Your task to perform on an android device: check battery use Image 0: 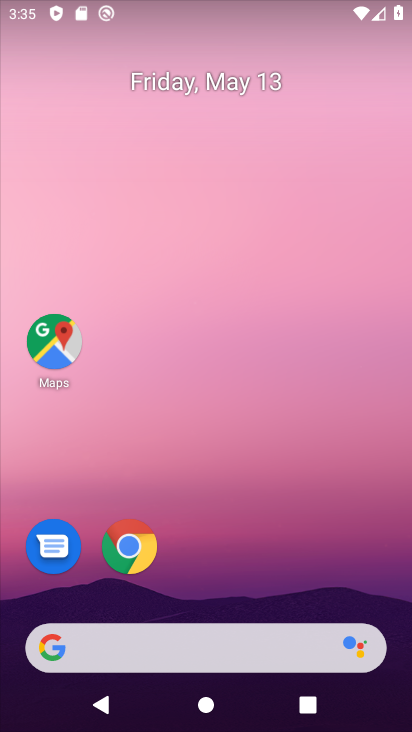
Step 0: drag from (218, 727) to (222, 139)
Your task to perform on an android device: check battery use Image 1: 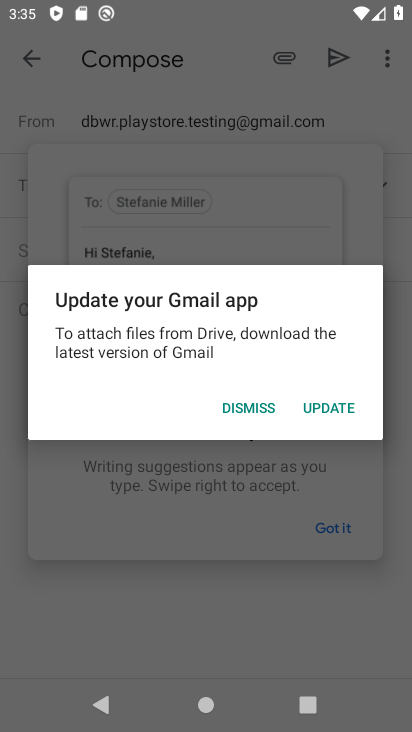
Step 1: press home button
Your task to perform on an android device: check battery use Image 2: 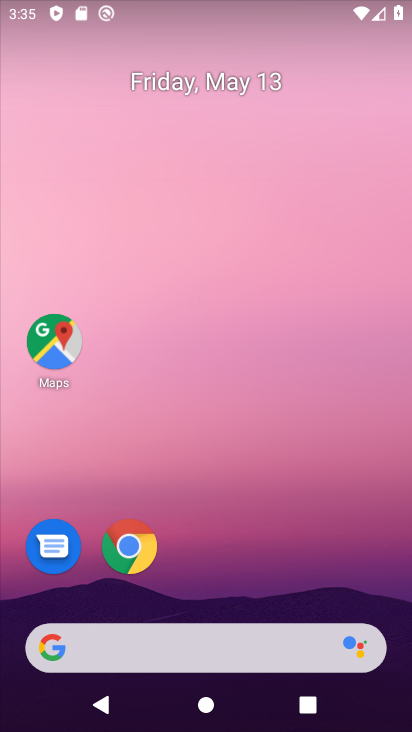
Step 2: drag from (221, 722) to (223, 75)
Your task to perform on an android device: check battery use Image 3: 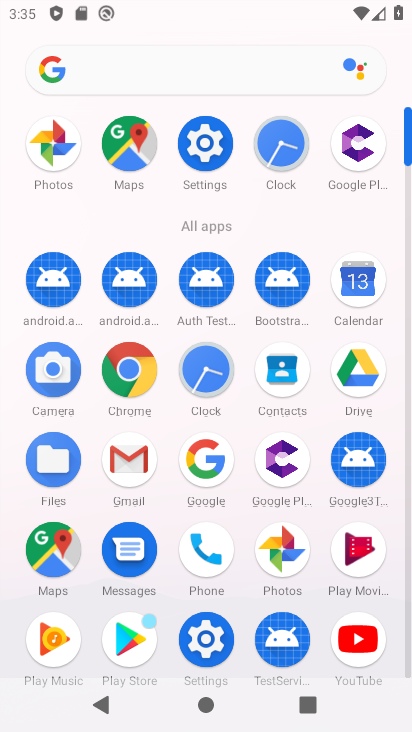
Step 3: click (203, 140)
Your task to perform on an android device: check battery use Image 4: 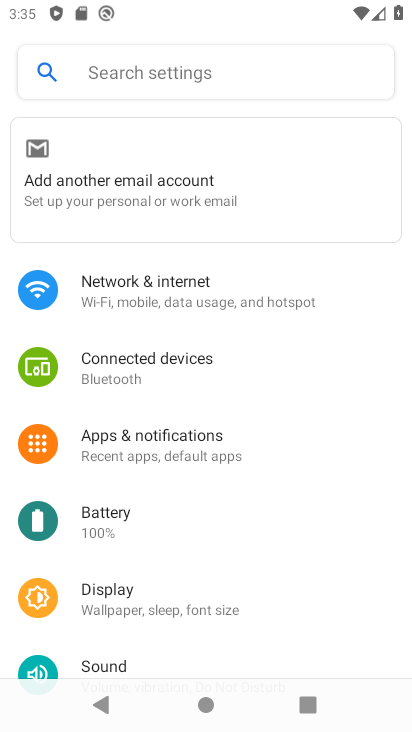
Step 4: click (101, 516)
Your task to perform on an android device: check battery use Image 5: 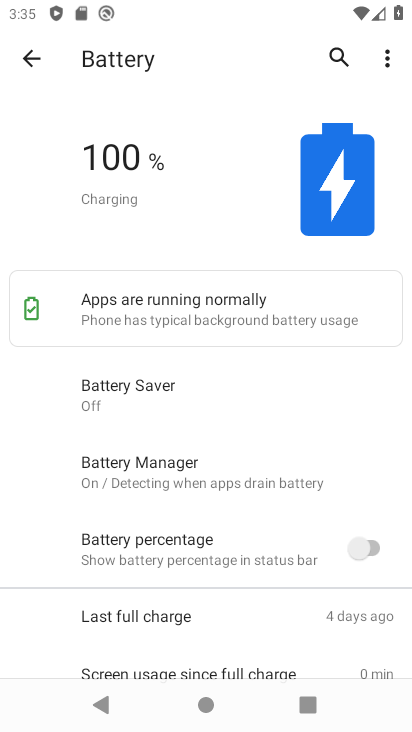
Step 5: drag from (167, 620) to (167, 406)
Your task to perform on an android device: check battery use Image 6: 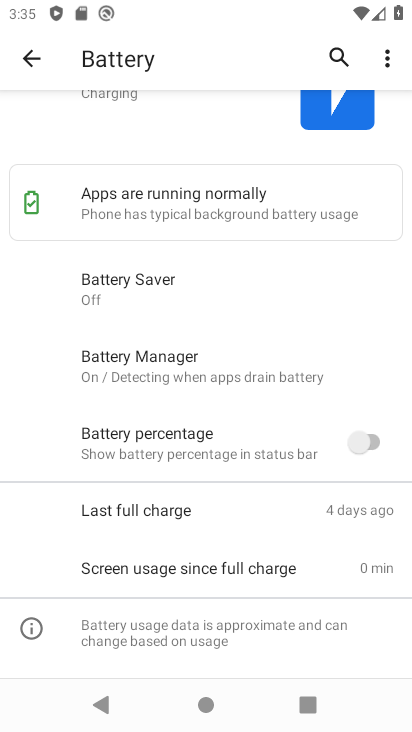
Step 6: click (384, 59)
Your task to perform on an android device: check battery use Image 7: 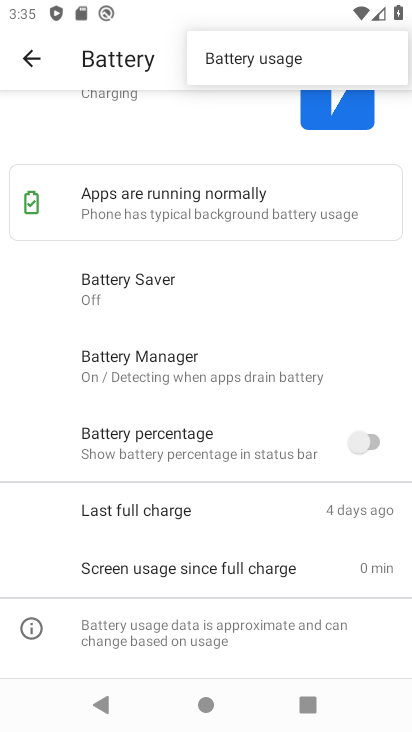
Step 7: click (225, 59)
Your task to perform on an android device: check battery use Image 8: 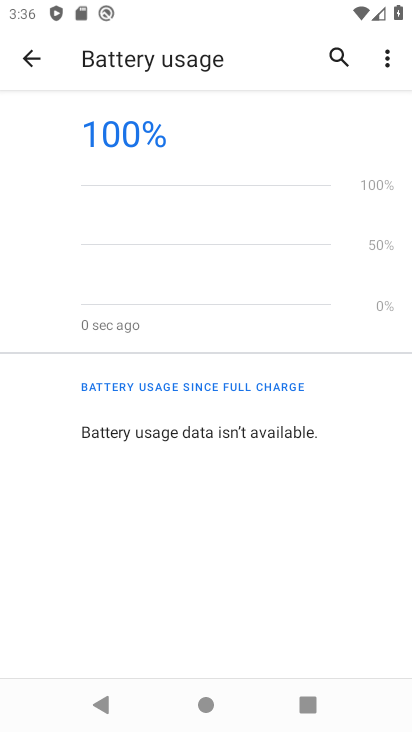
Step 8: task complete